Your task to perform on an android device: View the shopping cart on walmart.com. Search for "usb-c" on walmart.com, select the first entry, and add it to the cart. Image 0: 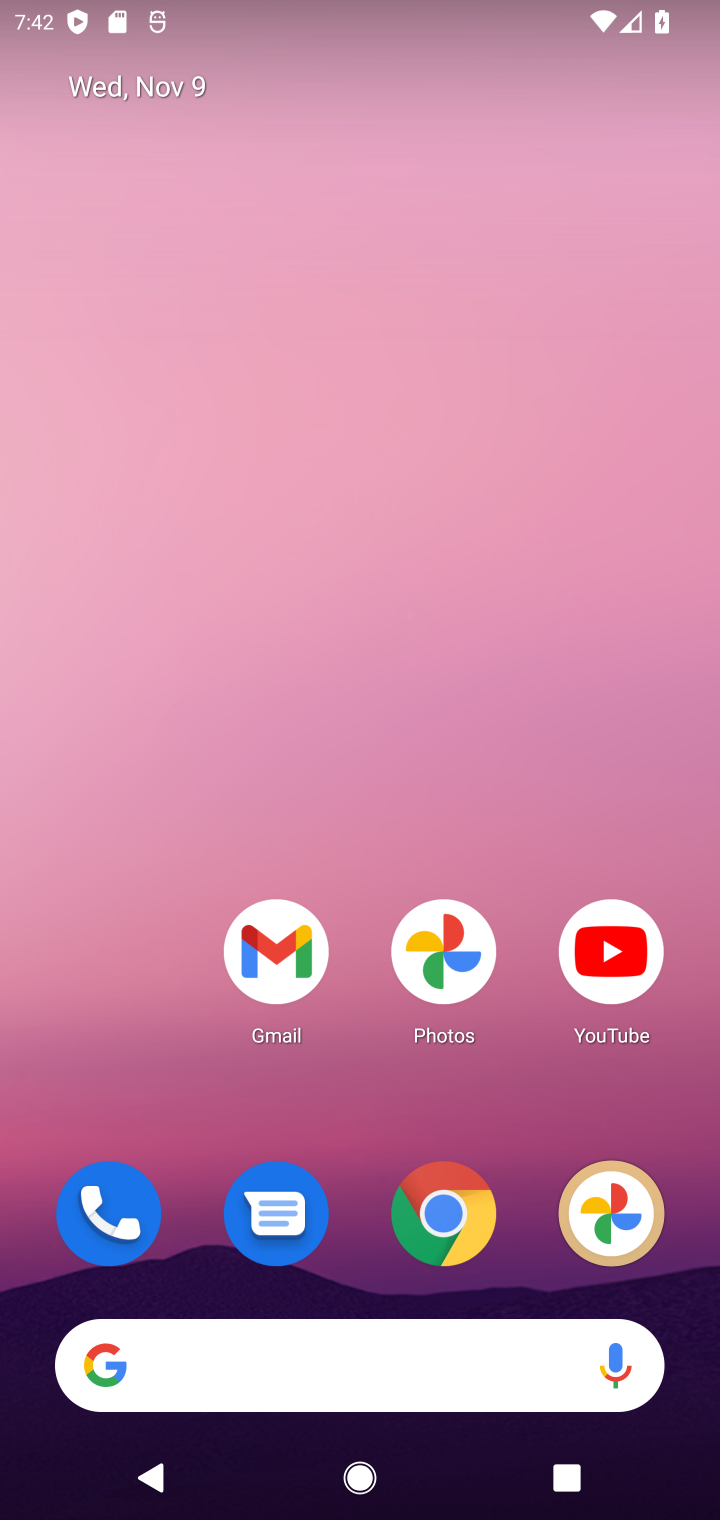
Step 0: click (479, 1211)
Your task to perform on an android device: View the shopping cart on walmart.com. Search for "usb-c" on walmart.com, select the first entry, and add it to the cart. Image 1: 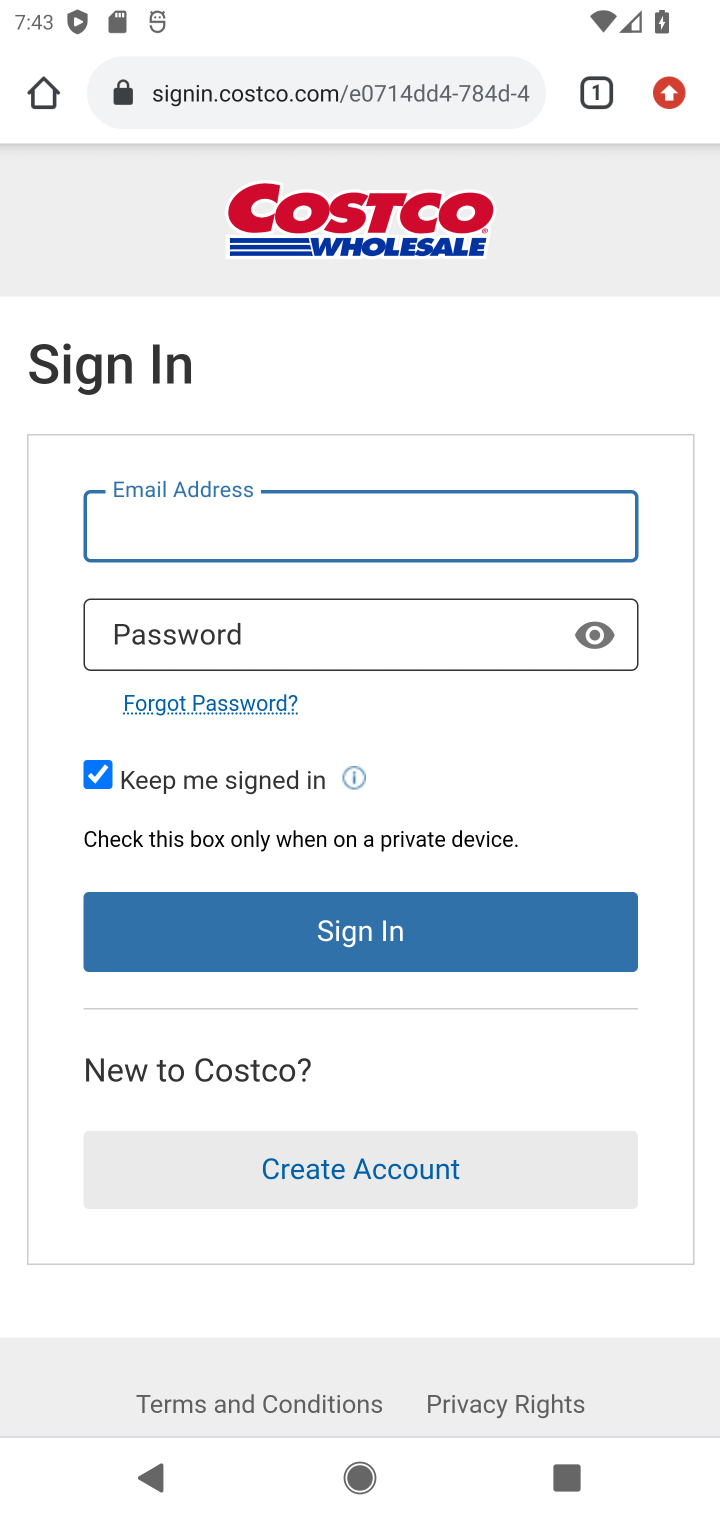
Step 1: click (292, 97)
Your task to perform on an android device: View the shopping cart on walmart.com. Search for "usb-c" on walmart.com, select the first entry, and add it to the cart. Image 2: 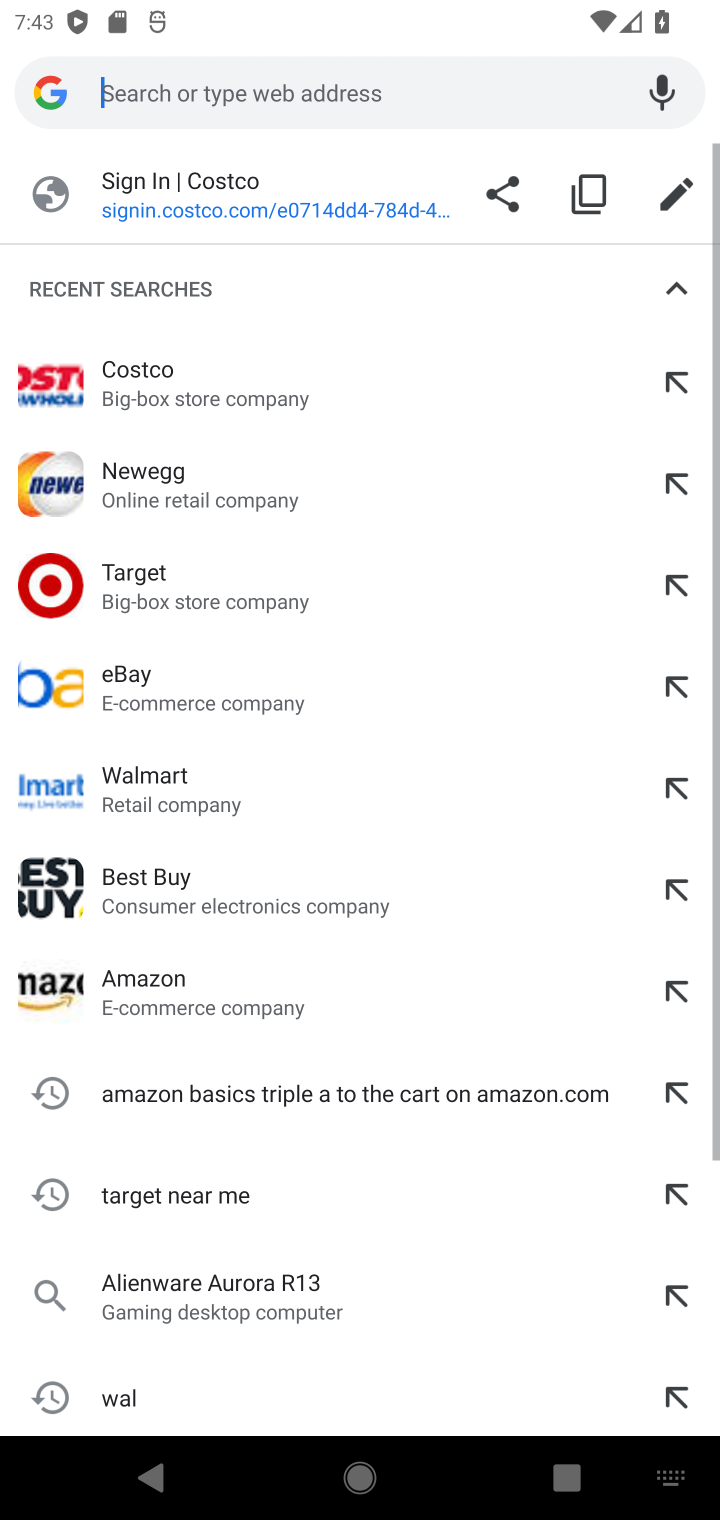
Step 2: click (125, 794)
Your task to perform on an android device: View the shopping cart on walmart.com. Search for "usb-c" on walmart.com, select the first entry, and add it to the cart. Image 3: 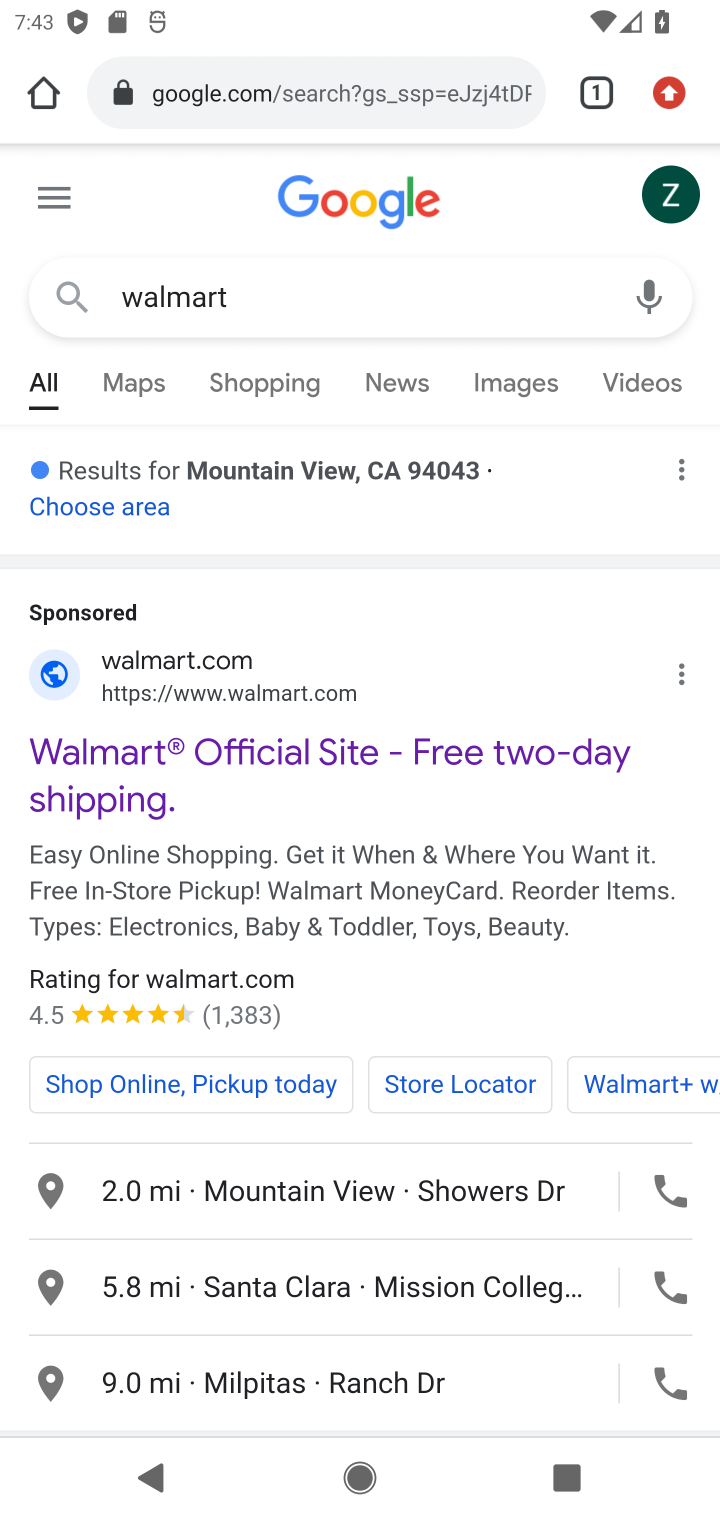
Step 3: drag from (357, 869) to (357, 595)
Your task to perform on an android device: View the shopping cart on walmart.com. Search for "usb-c" on walmart.com, select the first entry, and add it to the cart. Image 4: 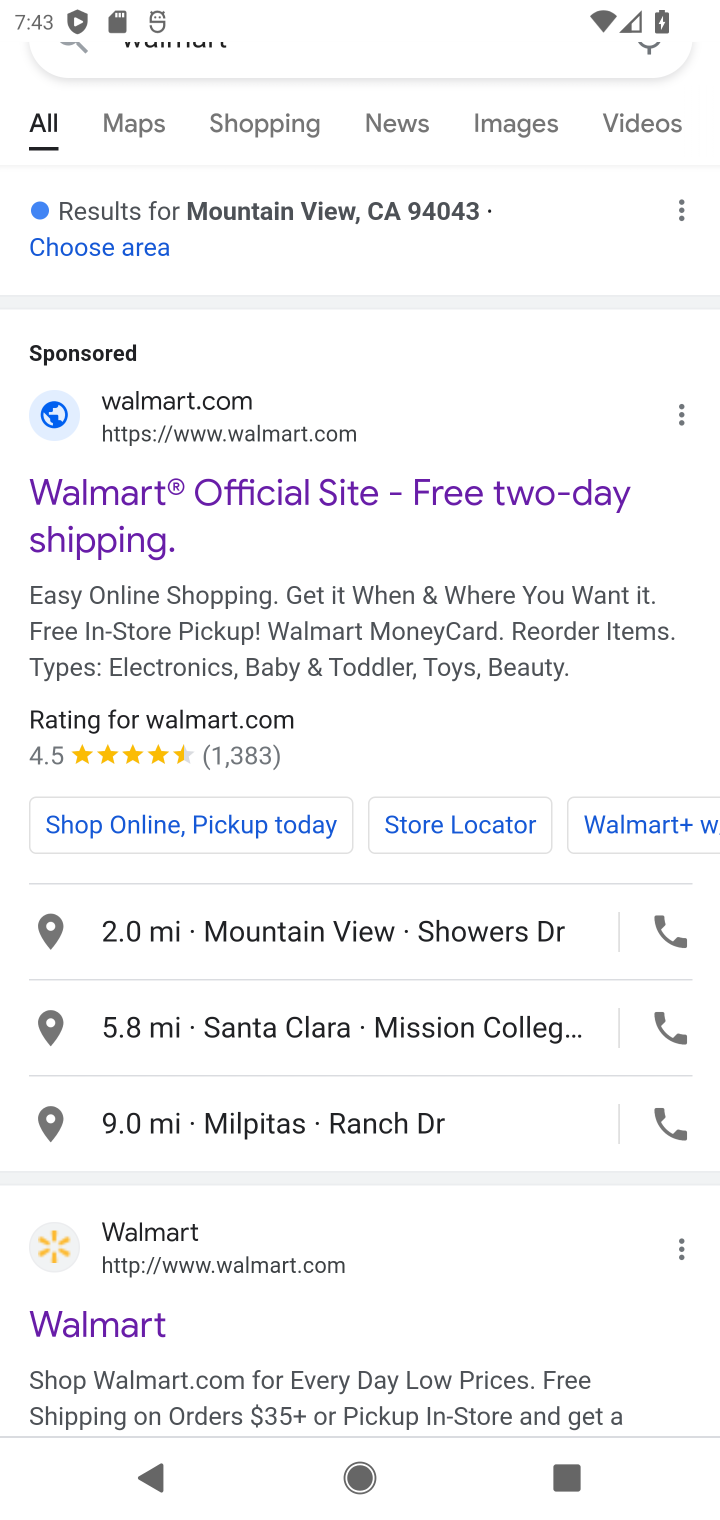
Step 4: click (170, 1300)
Your task to perform on an android device: View the shopping cart on walmart.com. Search for "usb-c" on walmart.com, select the first entry, and add it to the cart. Image 5: 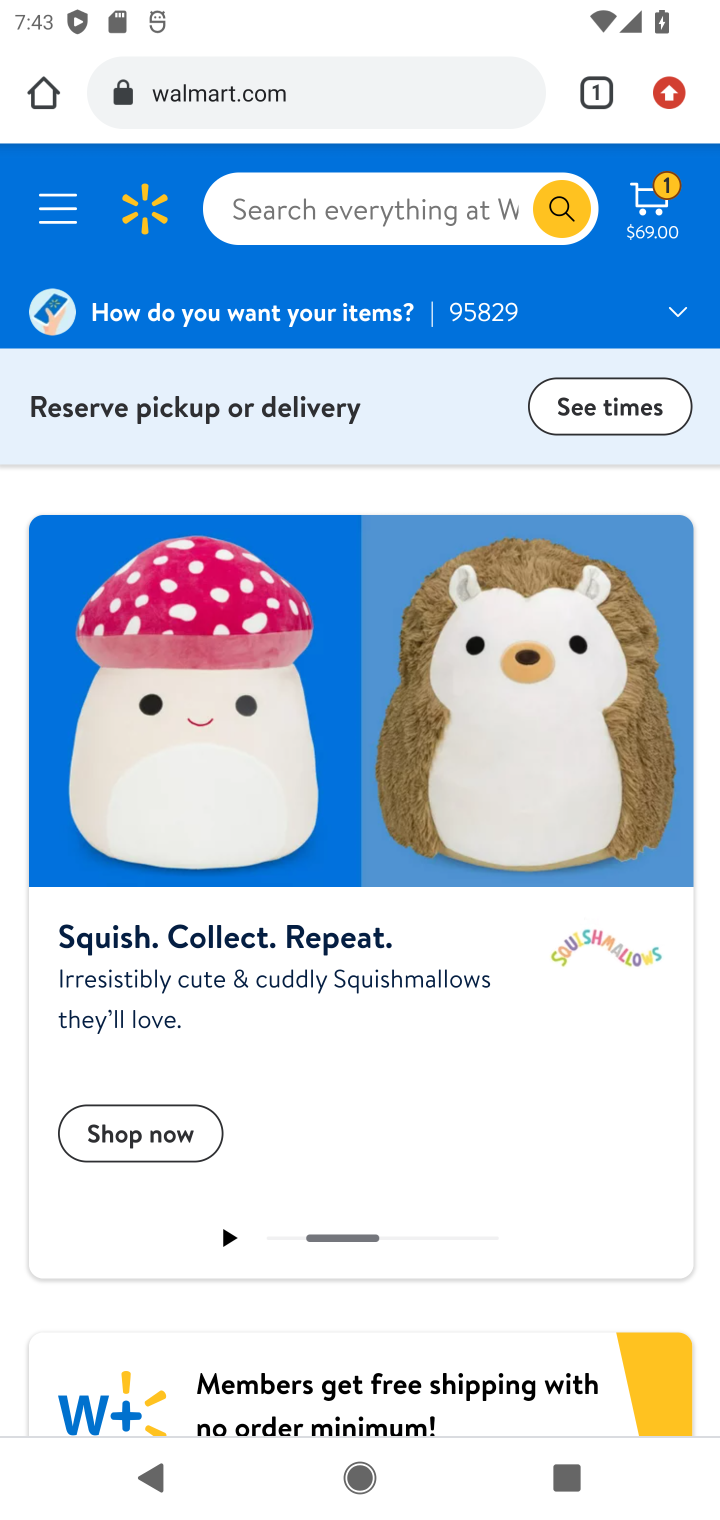
Step 5: click (264, 200)
Your task to perform on an android device: View the shopping cart on walmart.com. Search for "usb-c" on walmart.com, select the first entry, and add it to the cart. Image 6: 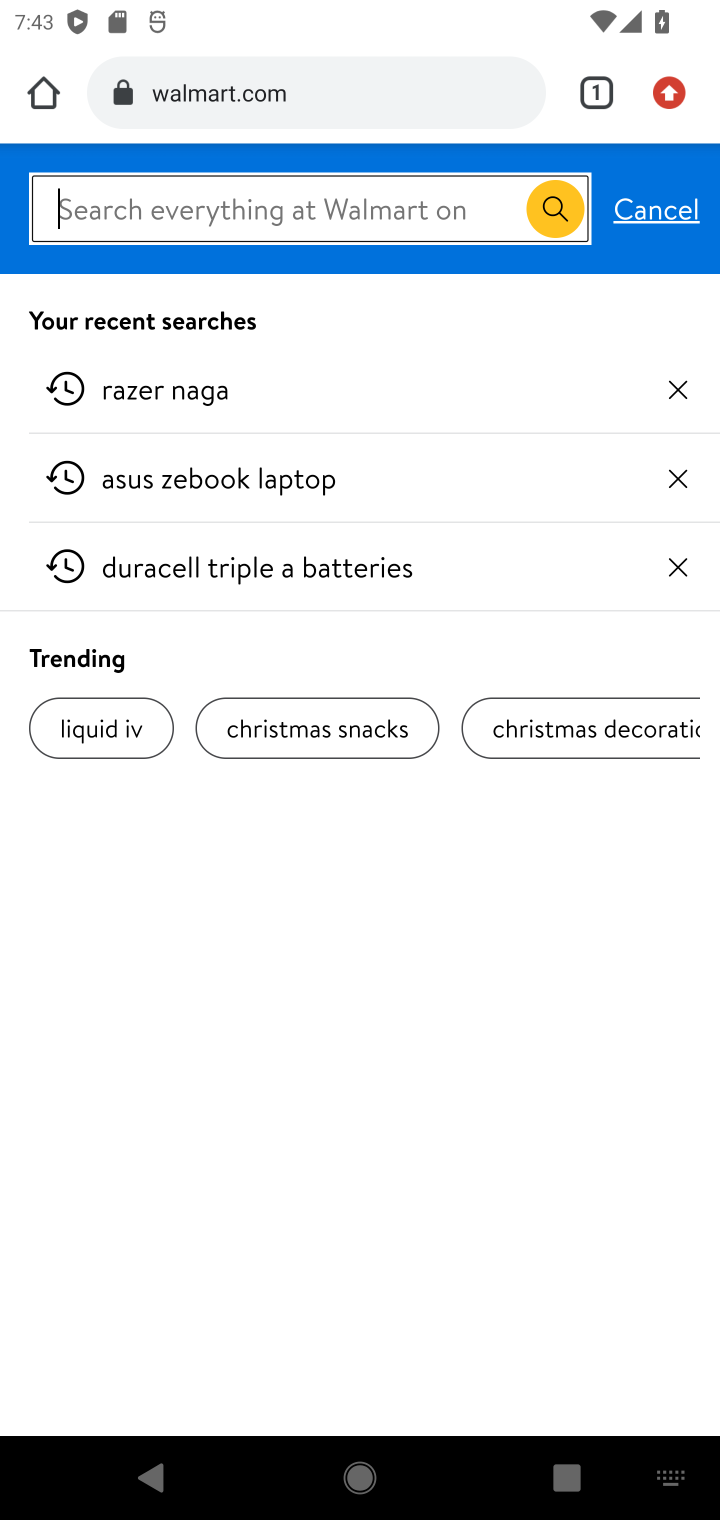
Step 6: type "usb c"
Your task to perform on an android device: View the shopping cart on walmart.com. Search for "usb-c" on walmart.com, select the first entry, and add it to the cart. Image 7: 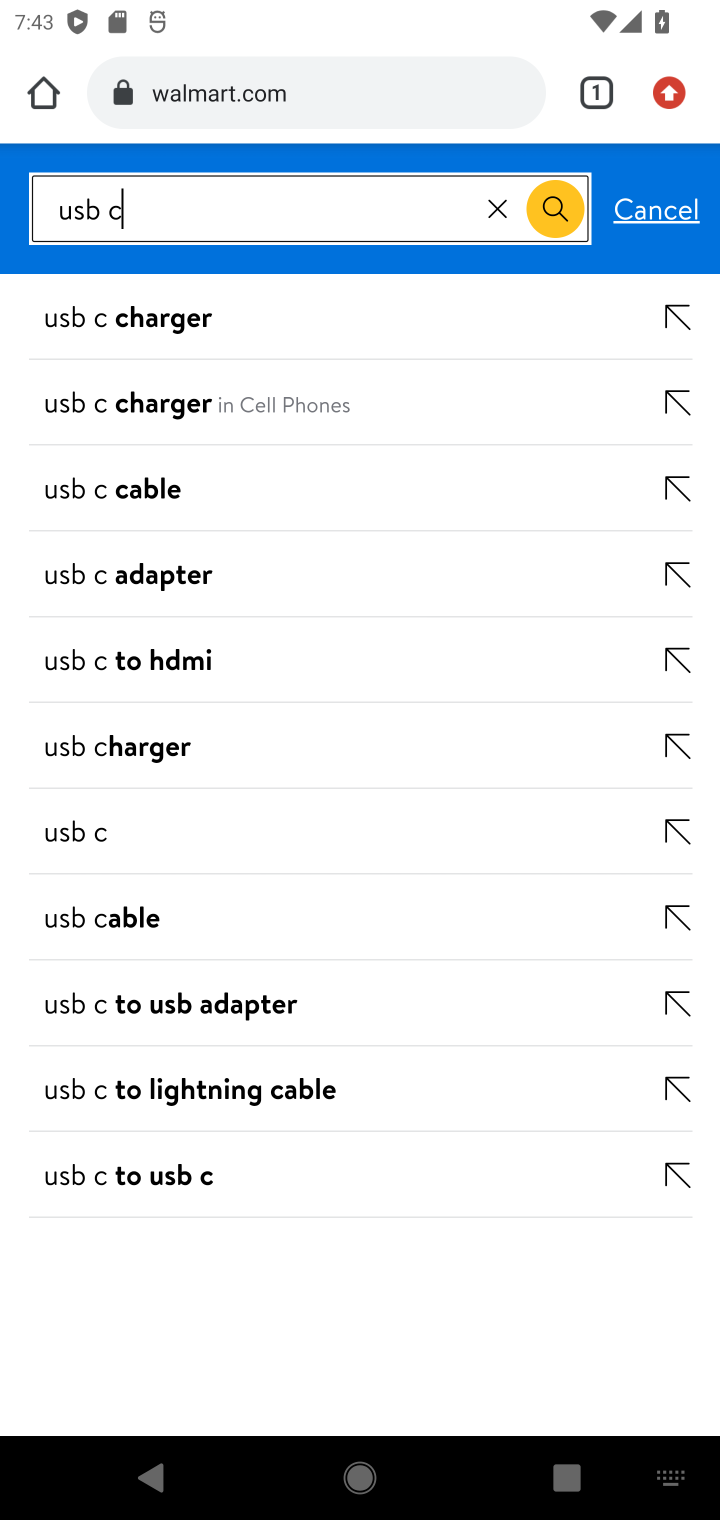
Step 7: click (158, 317)
Your task to perform on an android device: View the shopping cart on walmart.com. Search for "usb-c" on walmart.com, select the first entry, and add it to the cart. Image 8: 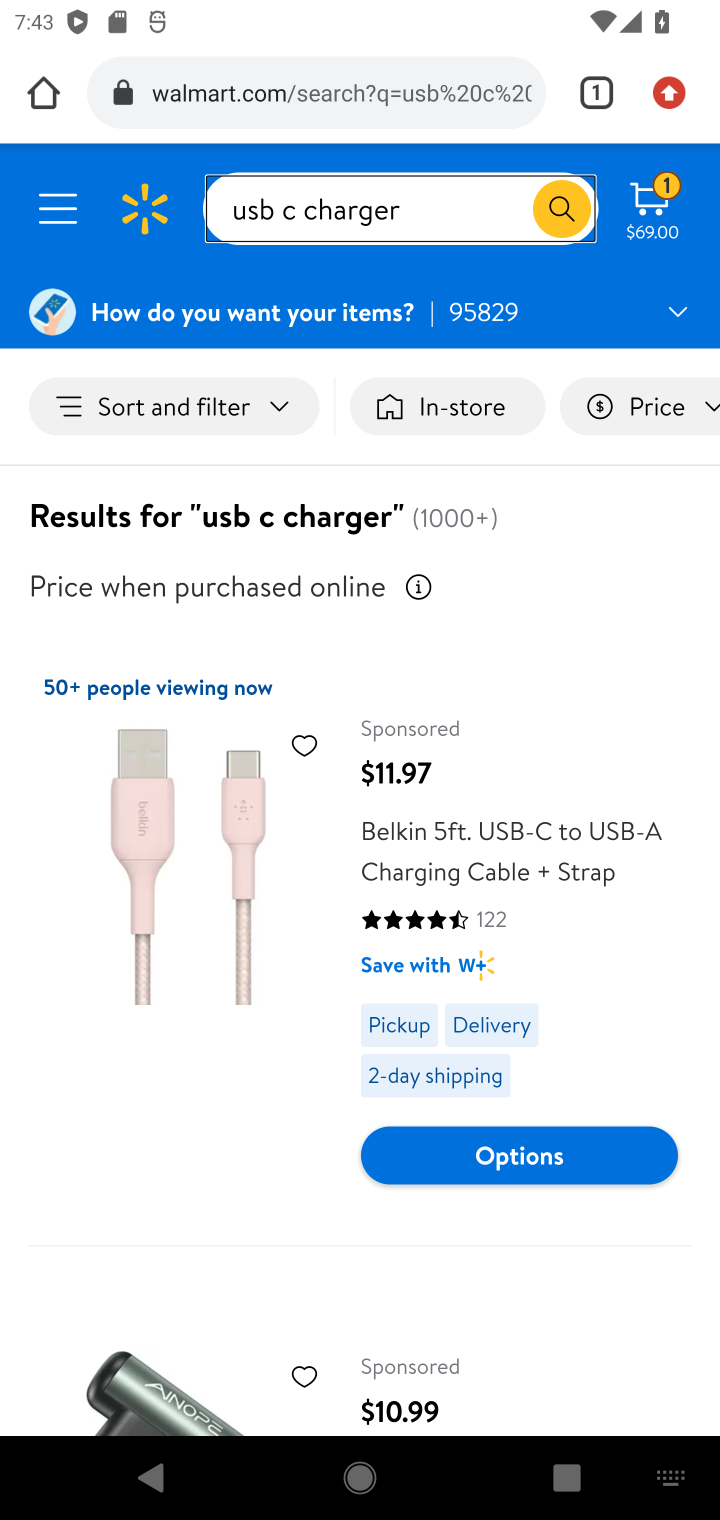
Step 8: click (475, 873)
Your task to perform on an android device: View the shopping cart on walmart.com. Search for "usb-c" on walmart.com, select the first entry, and add it to the cart. Image 9: 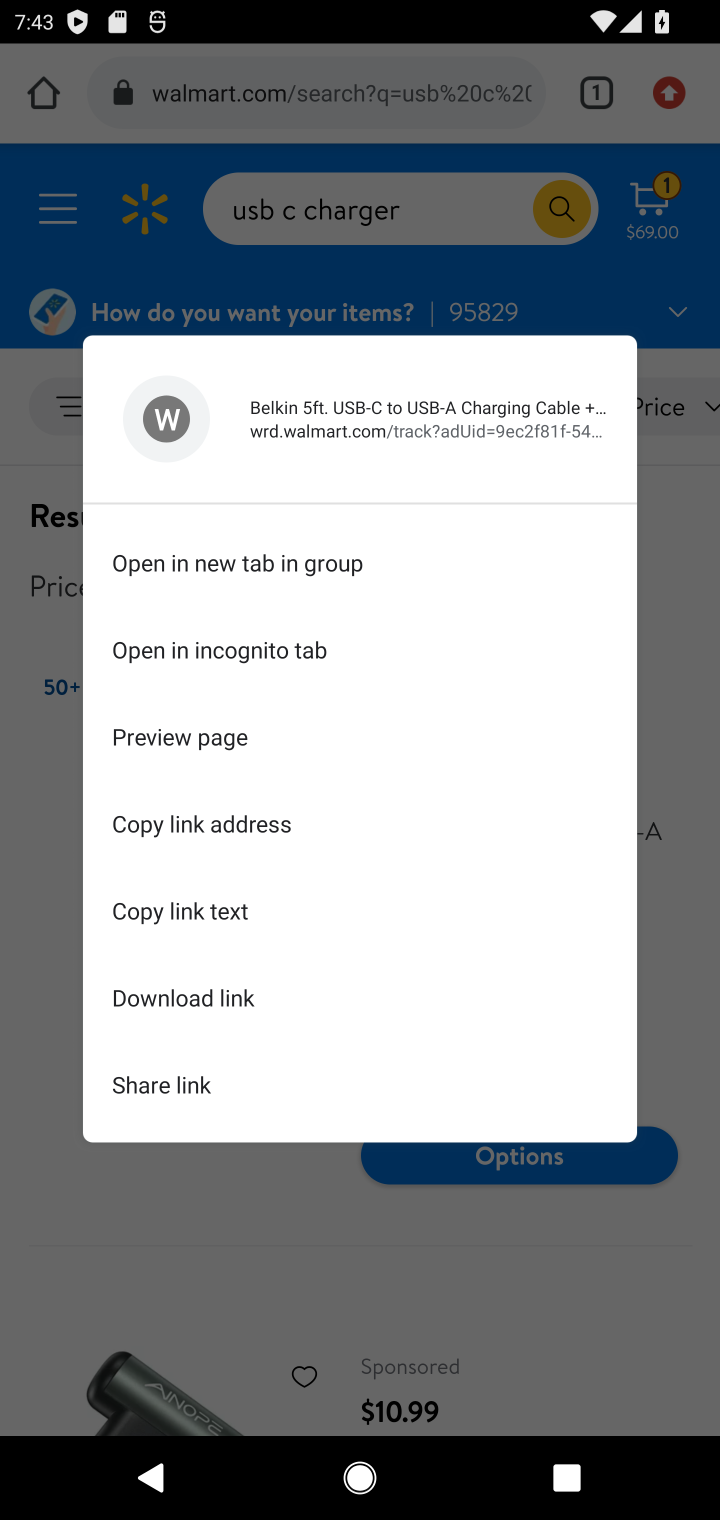
Step 9: click (676, 578)
Your task to perform on an android device: View the shopping cart on walmart.com. Search for "usb-c" on walmart.com, select the first entry, and add it to the cart. Image 10: 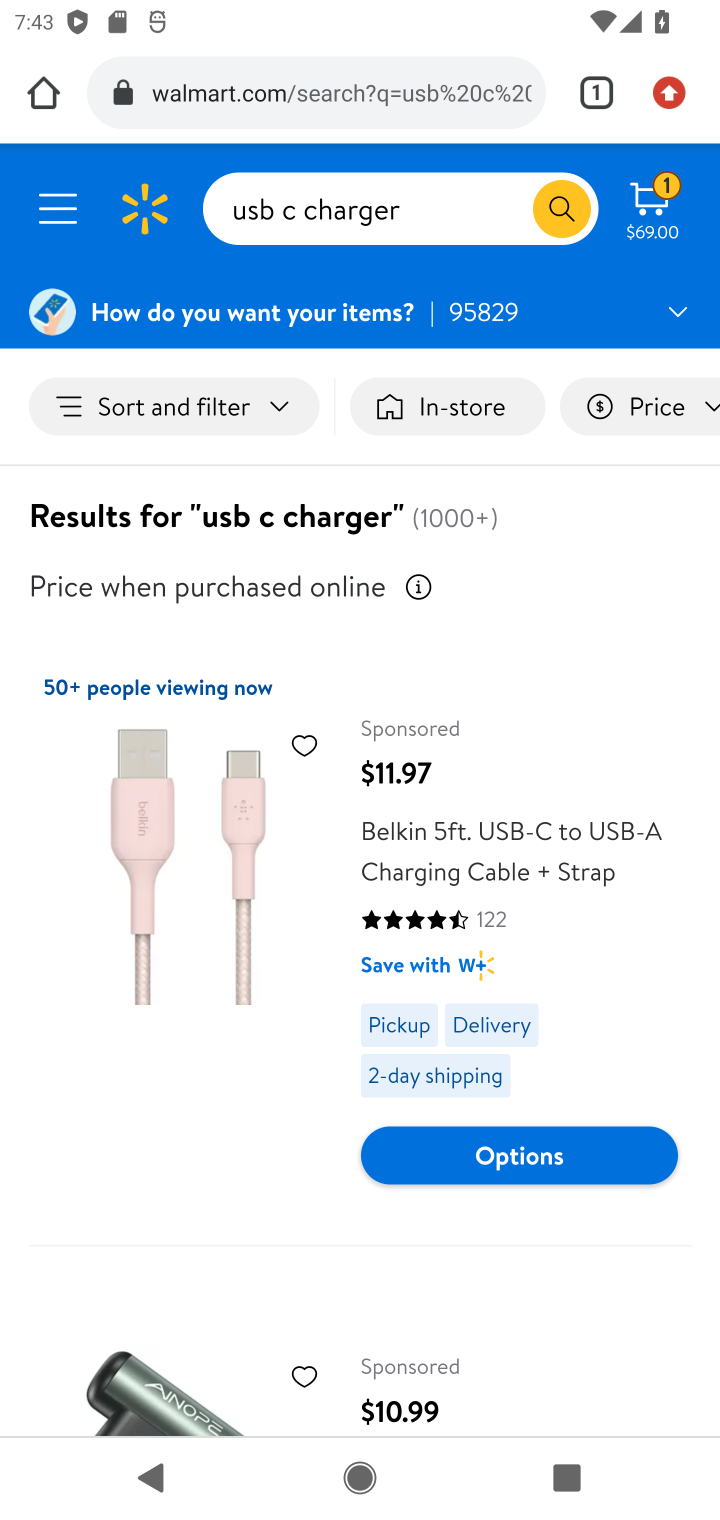
Step 10: drag from (196, 1037) to (273, 352)
Your task to perform on an android device: View the shopping cart on walmart.com. Search for "usb-c" on walmart.com, select the first entry, and add it to the cart. Image 11: 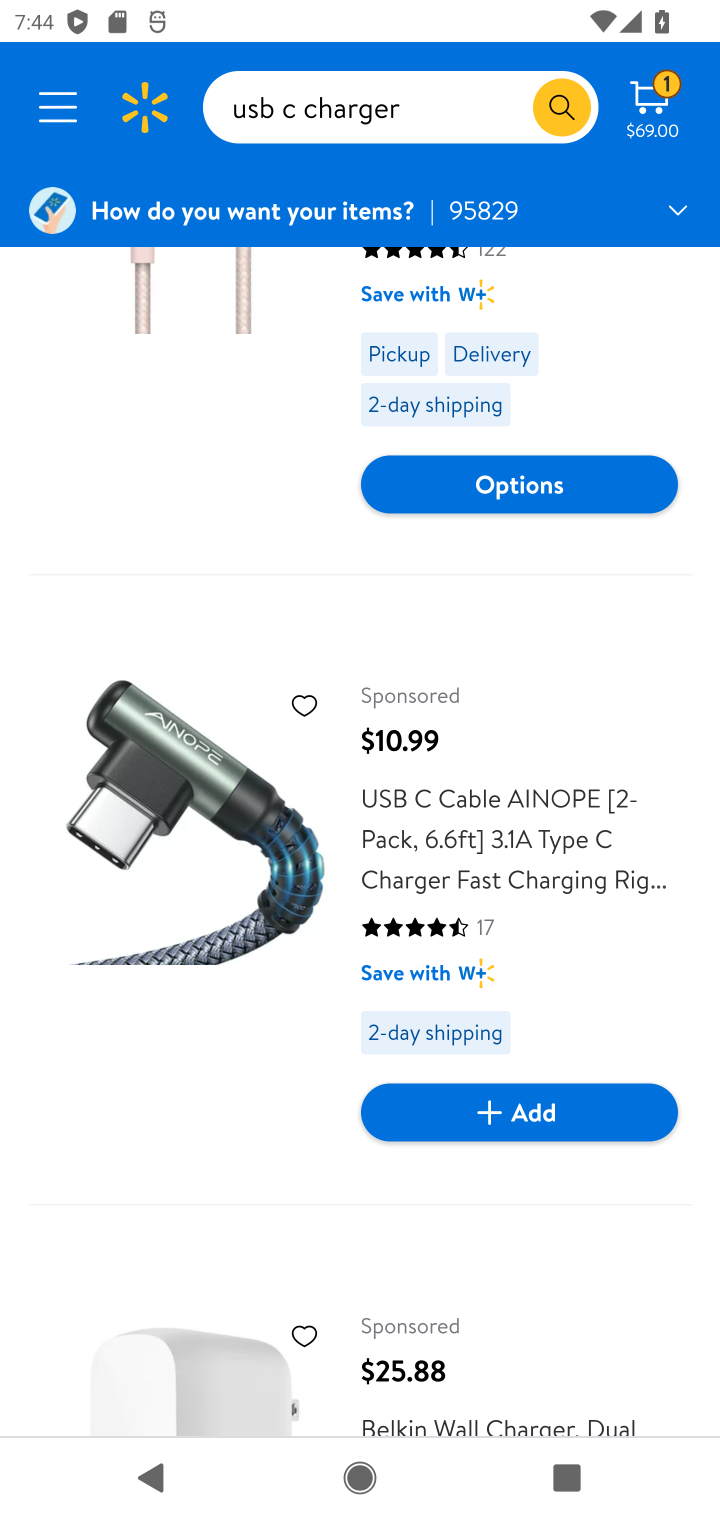
Step 11: click (459, 839)
Your task to perform on an android device: View the shopping cart on walmart.com. Search for "usb-c" on walmart.com, select the first entry, and add it to the cart. Image 12: 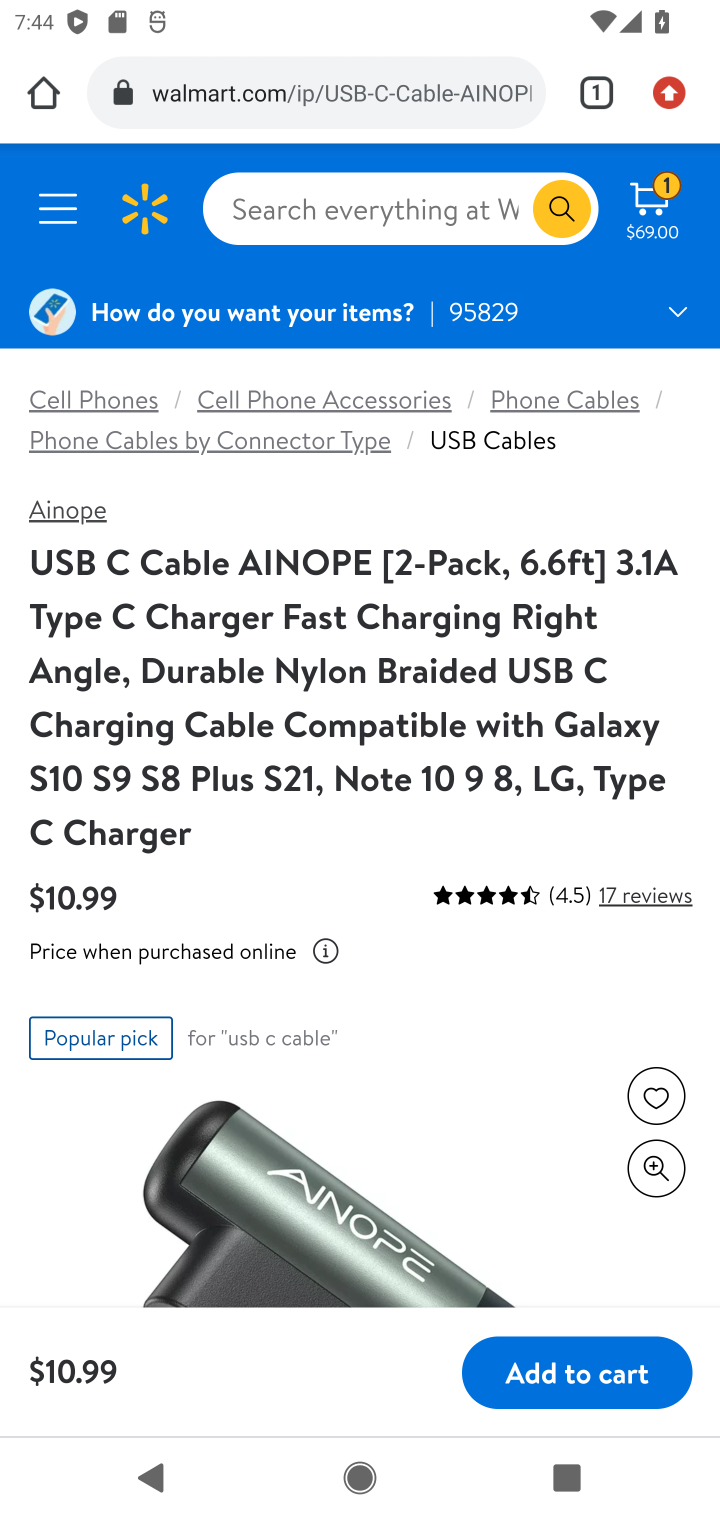
Step 12: click (613, 1377)
Your task to perform on an android device: View the shopping cart on walmart.com. Search for "usb-c" on walmart.com, select the first entry, and add it to the cart. Image 13: 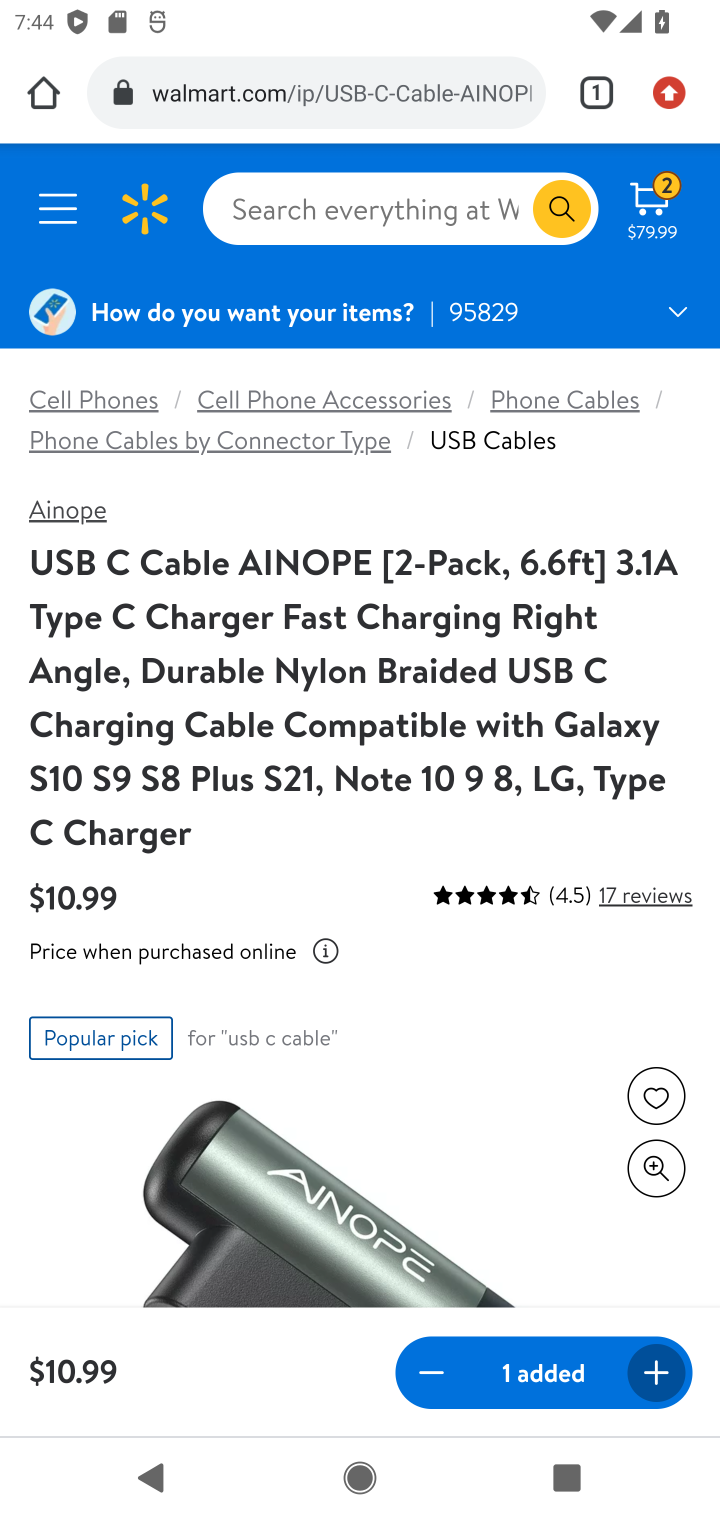
Step 13: click (680, 192)
Your task to perform on an android device: View the shopping cart on walmart.com. Search for "usb-c" on walmart.com, select the first entry, and add it to the cart. Image 14: 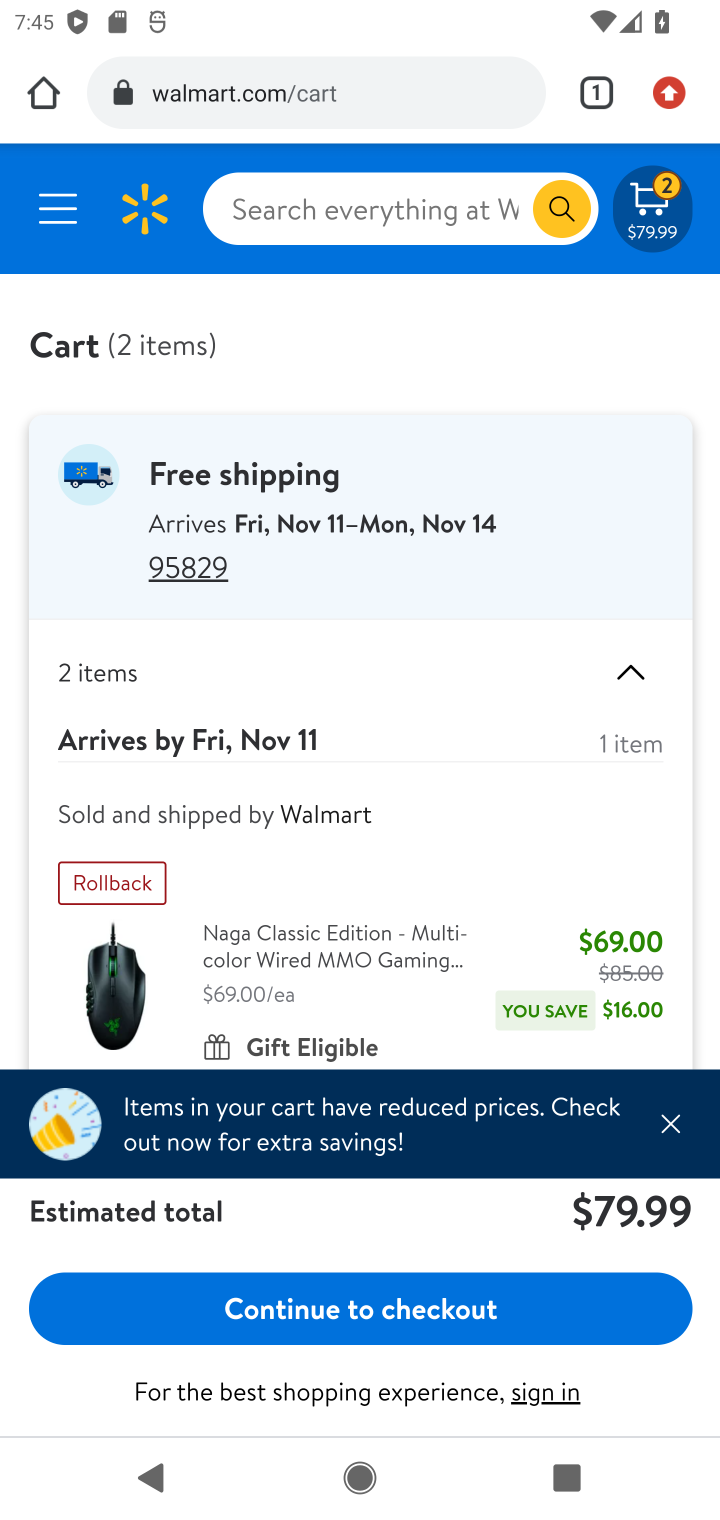
Step 14: click (676, 1128)
Your task to perform on an android device: View the shopping cart on walmart.com. Search for "usb-c" on walmart.com, select the first entry, and add it to the cart. Image 15: 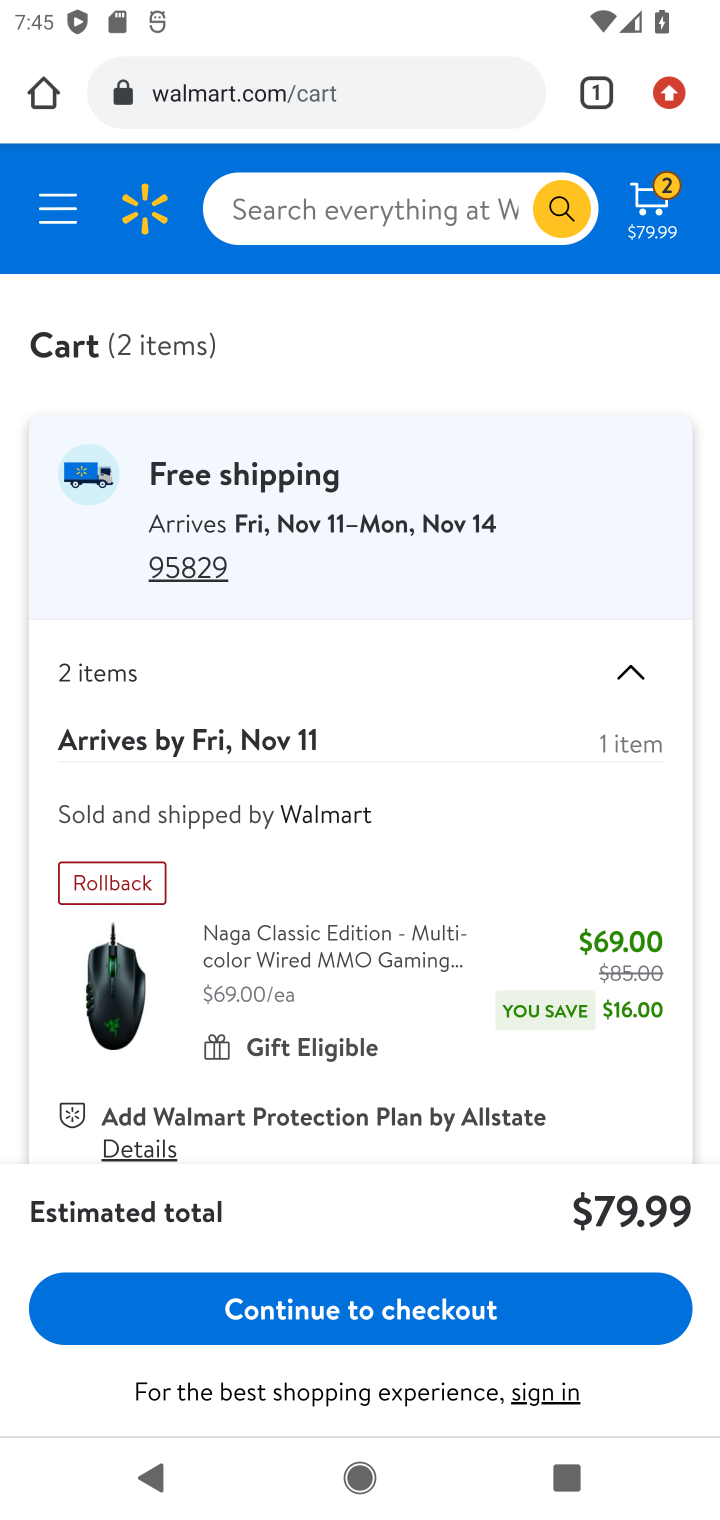
Step 15: task complete